Your task to perform on an android device: Go to privacy settings Image 0: 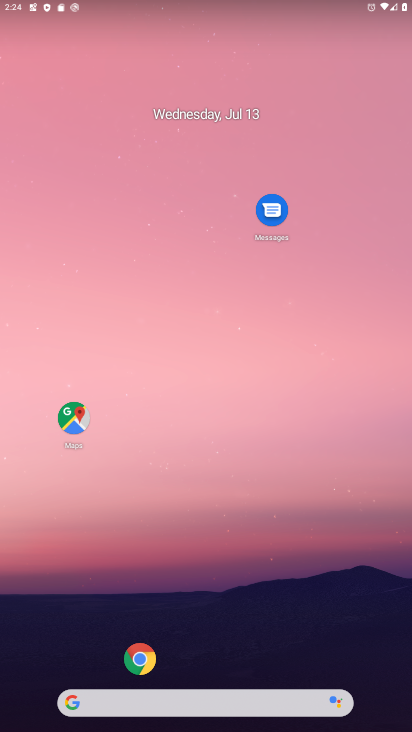
Step 0: click (181, 35)
Your task to perform on an android device: Go to privacy settings Image 1: 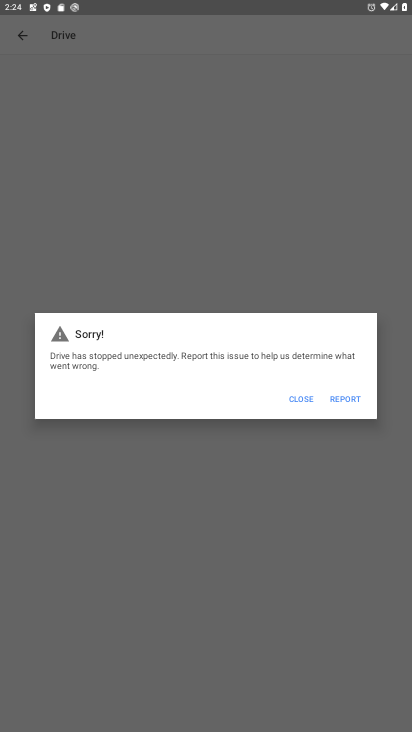
Step 1: press home button
Your task to perform on an android device: Go to privacy settings Image 2: 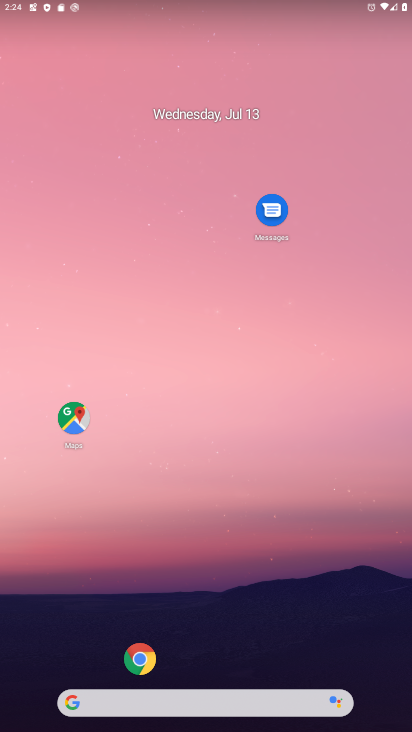
Step 2: drag from (41, 689) to (172, 20)
Your task to perform on an android device: Go to privacy settings Image 3: 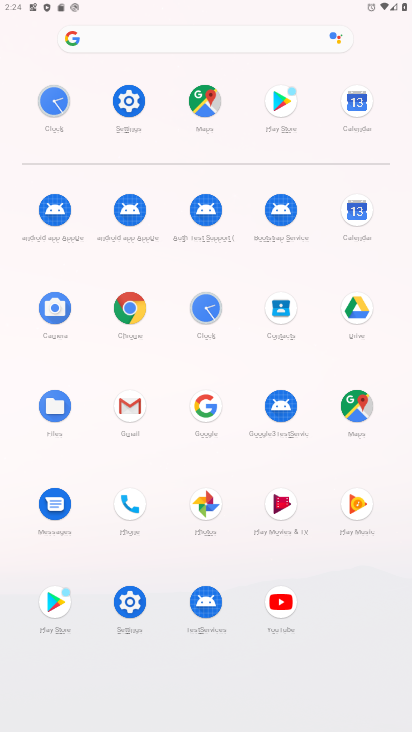
Step 3: click (127, 617)
Your task to perform on an android device: Go to privacy settings Image 4: 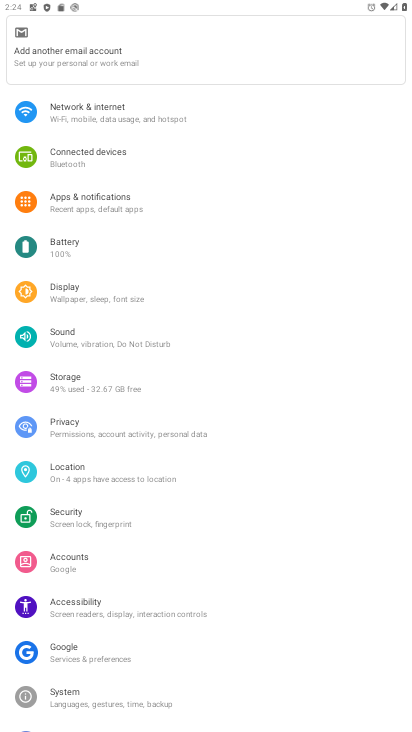
Step 4: click (86, 424)
Your task to perform on an android device: Go to privacy settings Image 5: 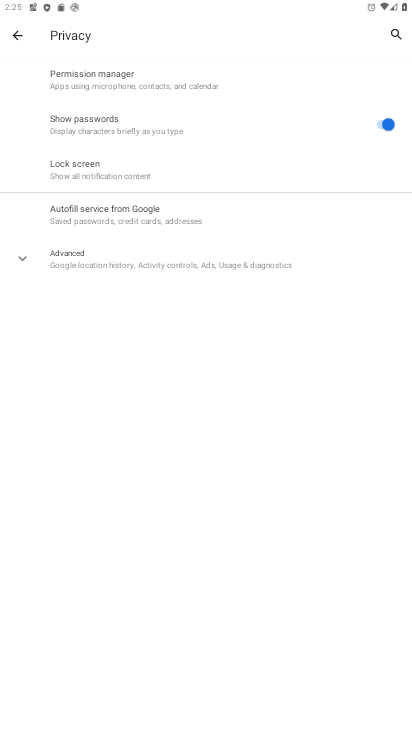
Step 5: task complete